Your task to perform on an android device: Open my contact list Image 0: 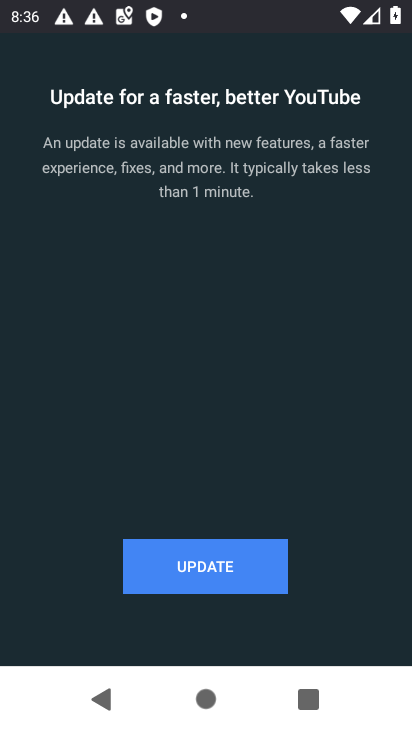
Step 0: press home button
Your task to perform on an android device: Open my contact list Image 1: 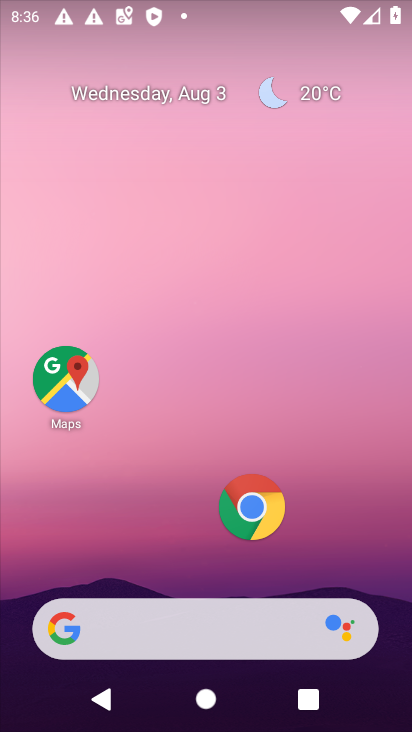
Step 1: drag from (189, 456) to (199, 92)
Your task to perform on an android device: Open my contact list Image 2: 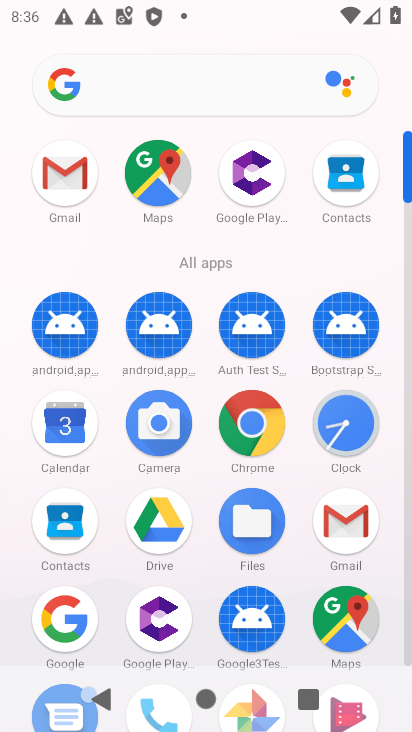
Step 2: click (352, 172)
Your task to perform on an android device: Open my contact list Image 3: 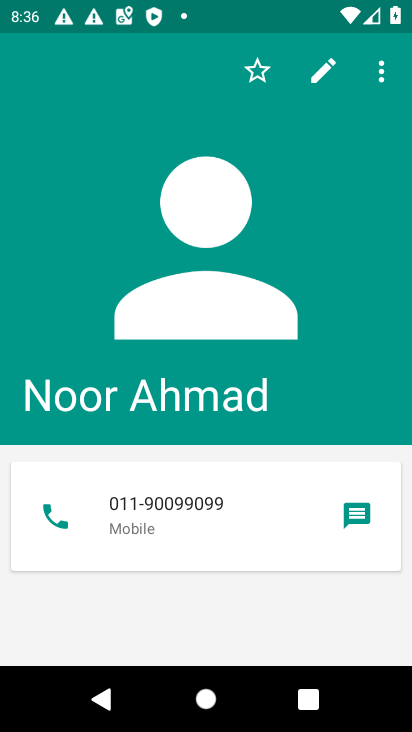
Step 3: task complete